Your task to perform on an android device: See recent photos Image 0: 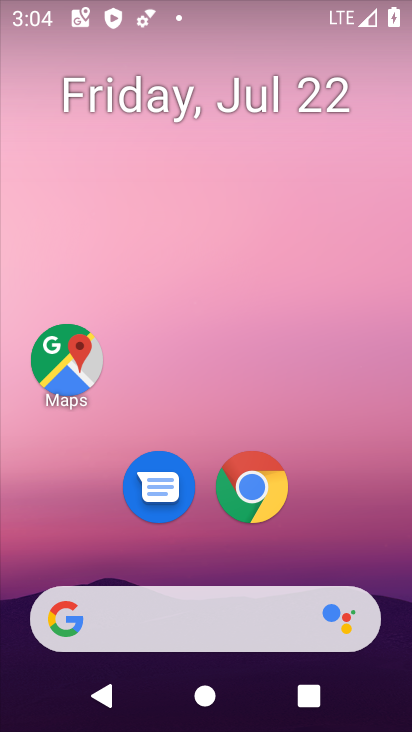
Step 0: drag from (169, 564) to (250, 44)
Your task to perform on an android device: See recent photos Image 1: 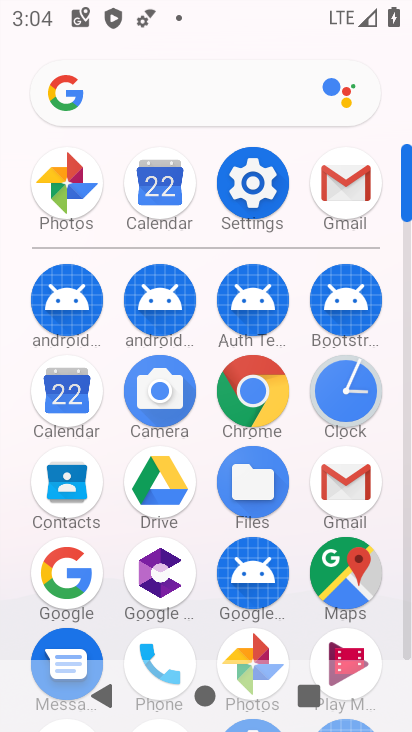
Step 1: click (250, 644)
Your task to perform on an android device: See recent photos Image 2: 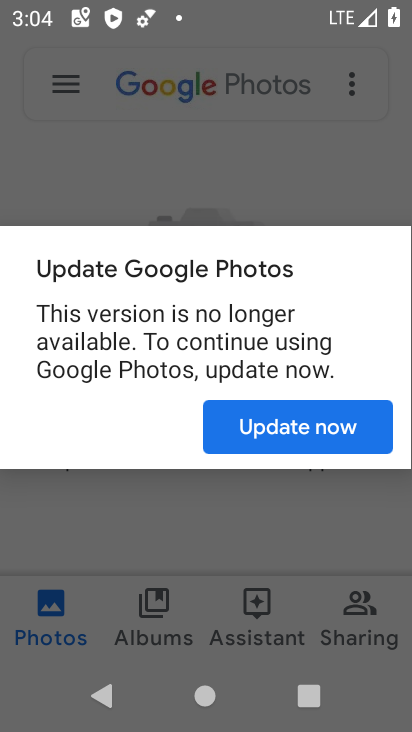
Step 2: press back button
Your task to perform on an android device: See recent photos Image 3: 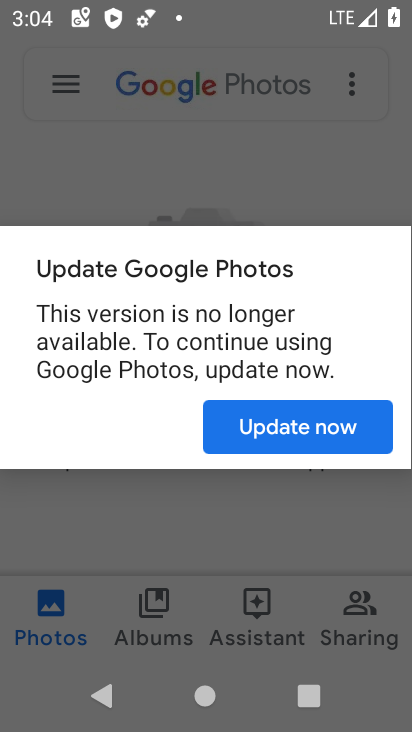
Step 3: press back button
Your task to perform on an android device: See recent photos Image 4: 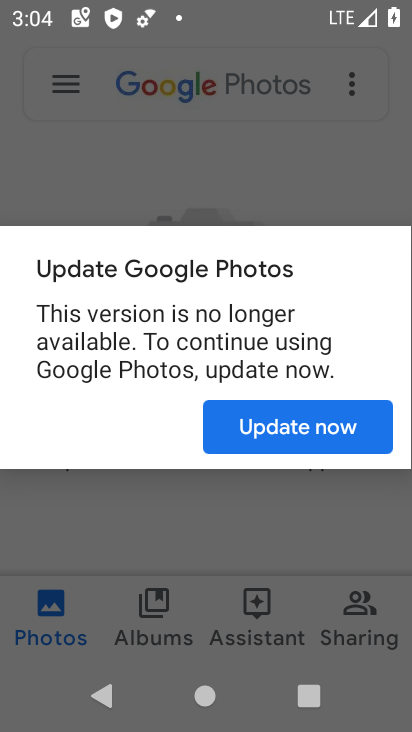
Step 4: press home button
Your task to perform on an android device: See recent photos Image 5: 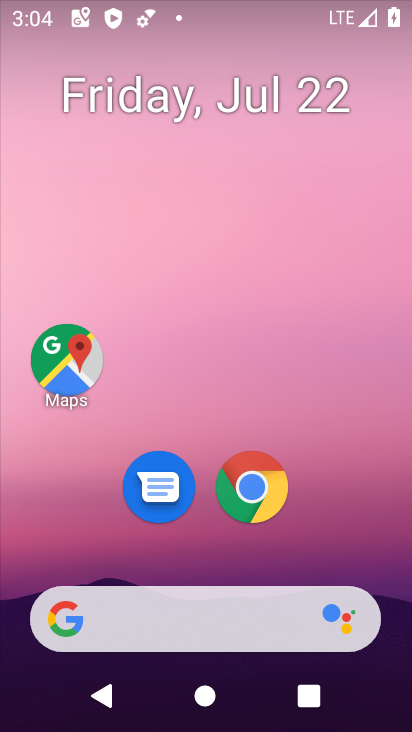
Step 5: drag from (75, 539) to (198, 52)
Your task to perform on an android device: See recent photos Image 6: 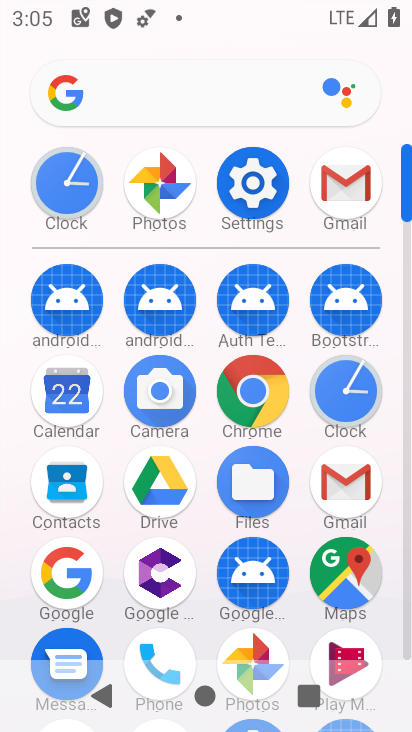
Step 6: click (251, 645)
Your task to perform on an android device: See recent photos Image 7: 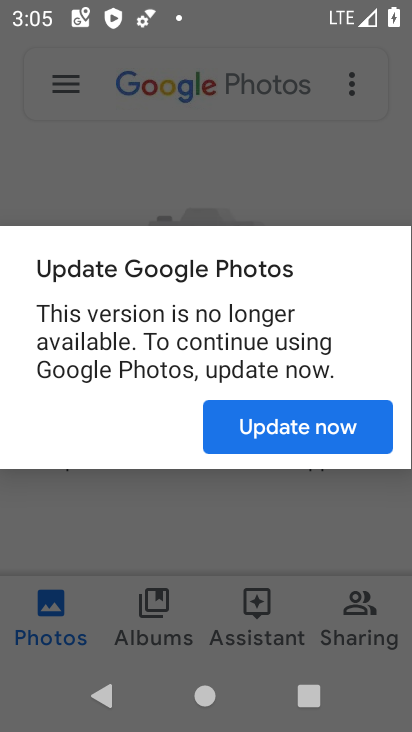
Step 7: click (282, 437)
Your task to perform on an android device: See recent photos Image 8: 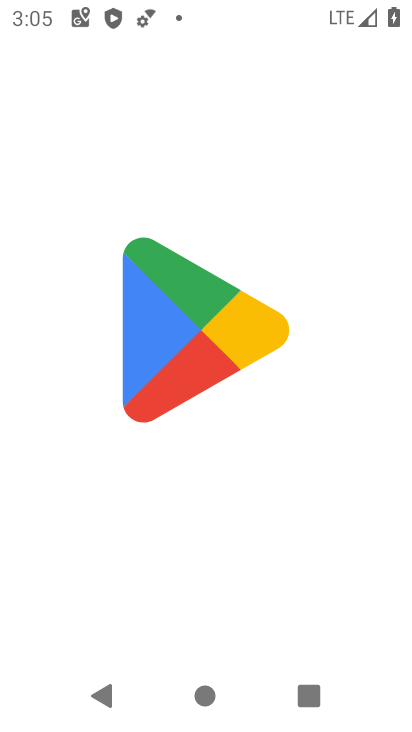
Step 8: task complete